Your task to perform on an android device: remove spam from my inbox in the gmail app Image 0: 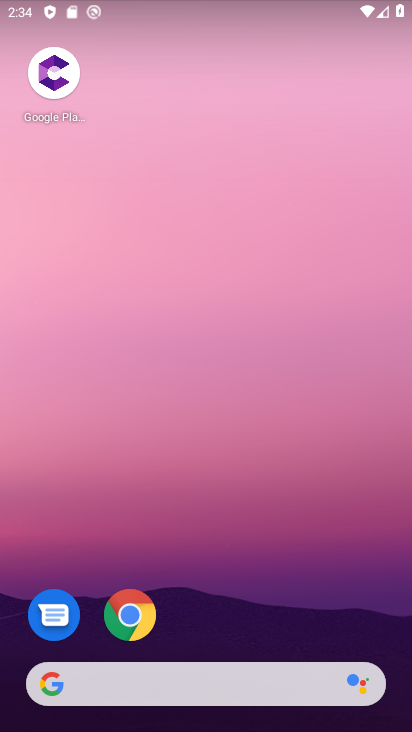
Step 0: drag from (265, 633) to (140, 141)
Your task to perform on an android device: remove spam from my inbox in the gmail app Image 1: 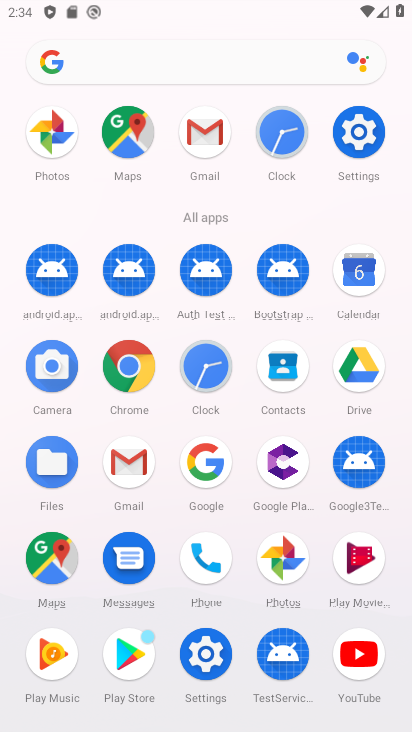
Step 1: click (211, 131)
Your task to perform on an android device: remove spam from my inbox in the gmail app Image 2: 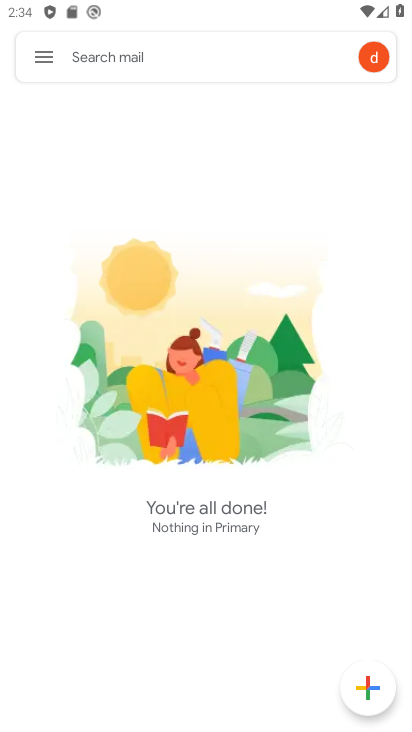
Step 2: click (47, 58)
Your task to perform on an android device: remove spam from my inbox in the gmail app Image 3: 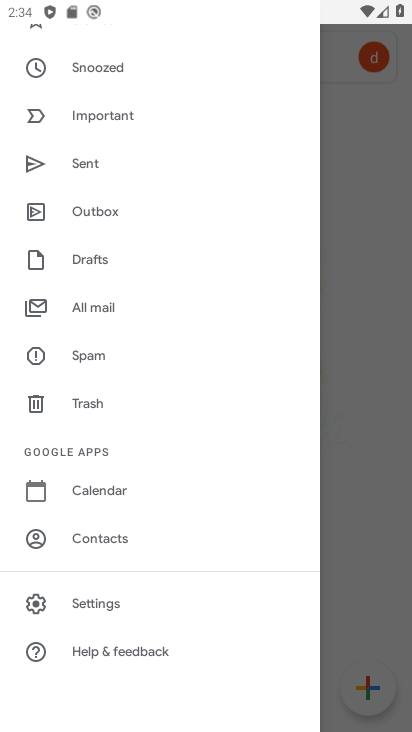
Step 3: click (106, 351)
Your task to perform on an android device: remove spam from my inbox in the gmail app Image 4: 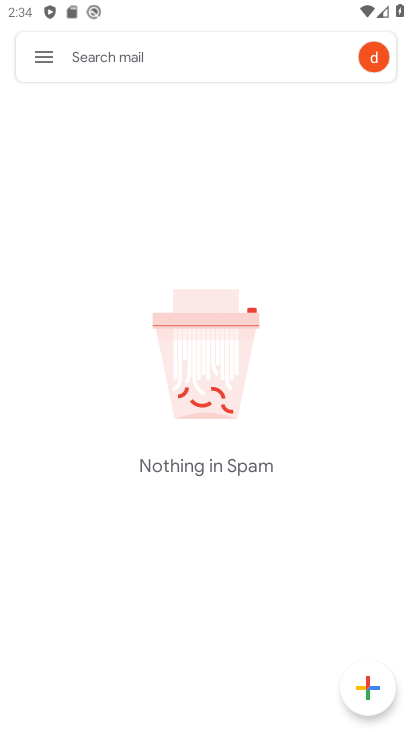
Step 4: task complete